Your task to perform on an android device: Open the map Image 0: 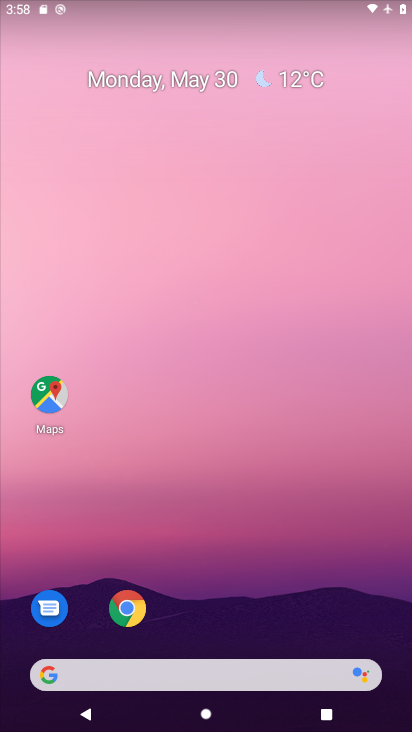
Step 0: click (44, 401)
Your task to perform on an android device: Open the map Image 1: 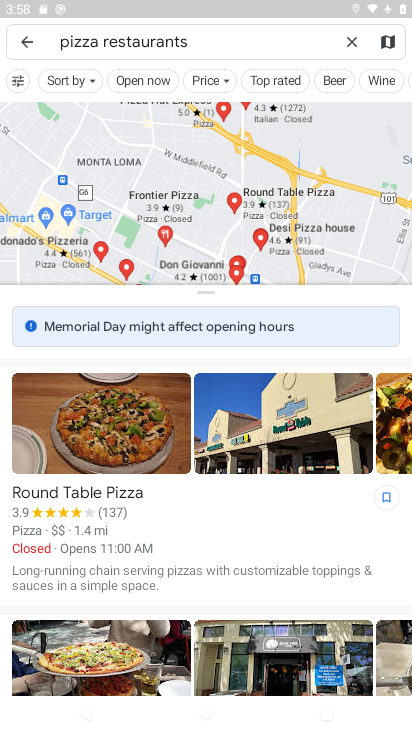
Step 1: task complete